Your task to perform on an android device: open chrome privacy settings Image 0: 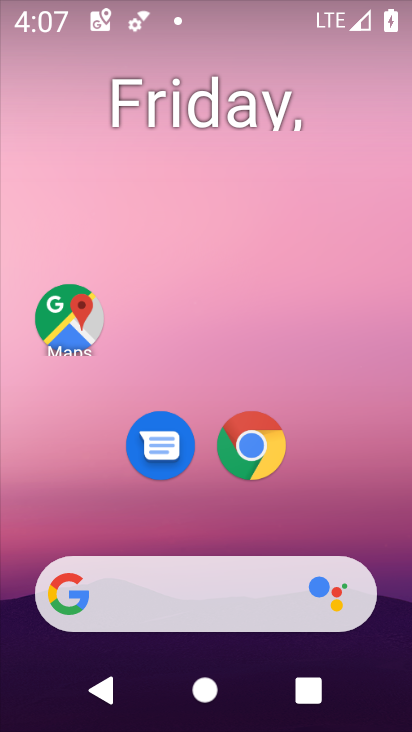
Step 0: click (260, 456)
Your task to perform on an android device: open chrome privacy settings Image 1: 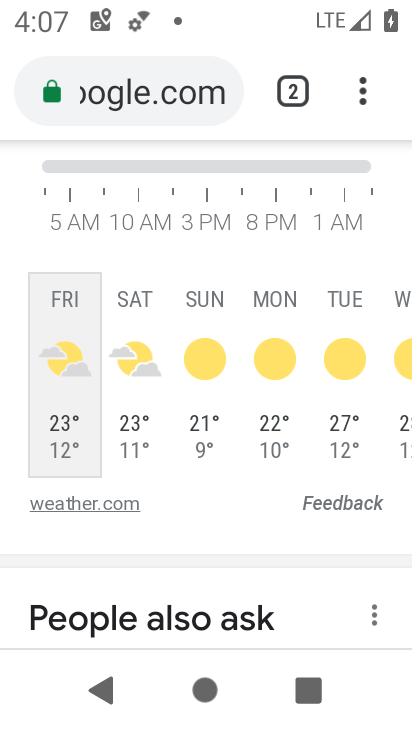
Step 1: click (364, 89)
Your task to perform on an android device: open chrome privacy settings Image 2: 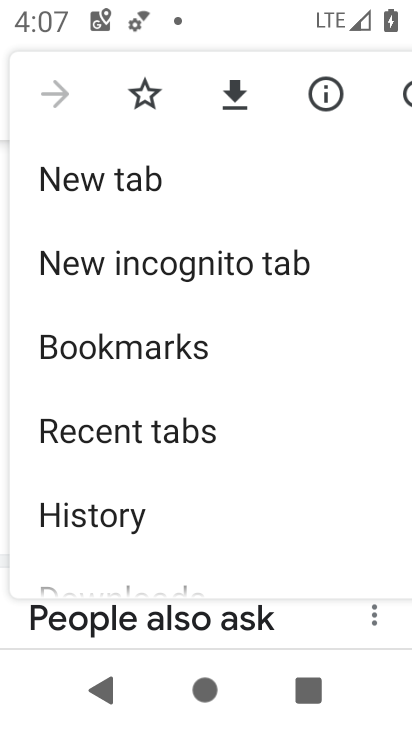
Step 2: drag from (170, 570) to (184, 105)
Your task to perform on an android device: open chrome privacy settings Image 3: 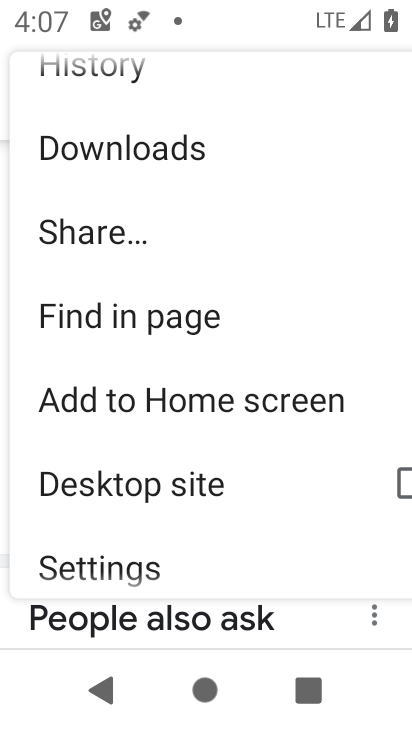
Step 3: drag from (155, 513) to (116, 211)
Your task to perform on an android device: open chrome privacy settings Image 4: 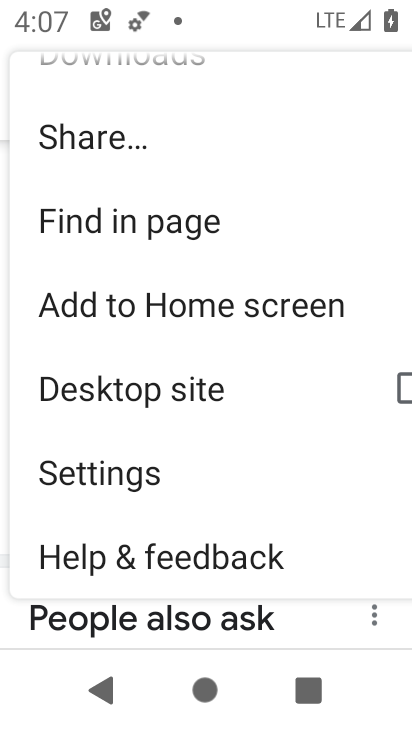
Step 4: click (139, 457)
Your task to perform on an android device: open chrome privacy settings Image 5: 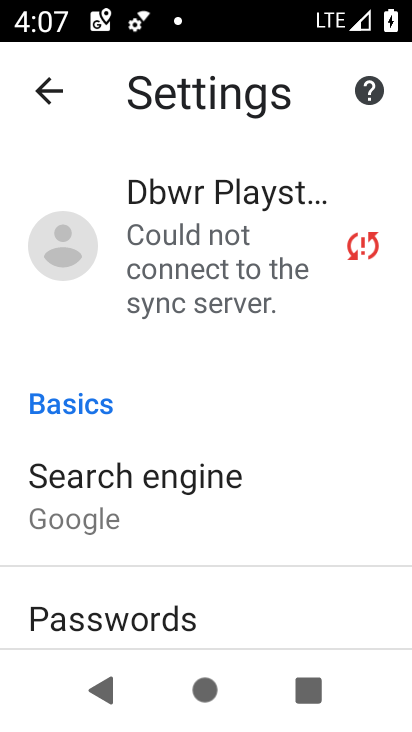
Step 5: drag from (189, 596) to (193, 221)
Your task to perform on an android device: open chrome privacy settings Image 6: 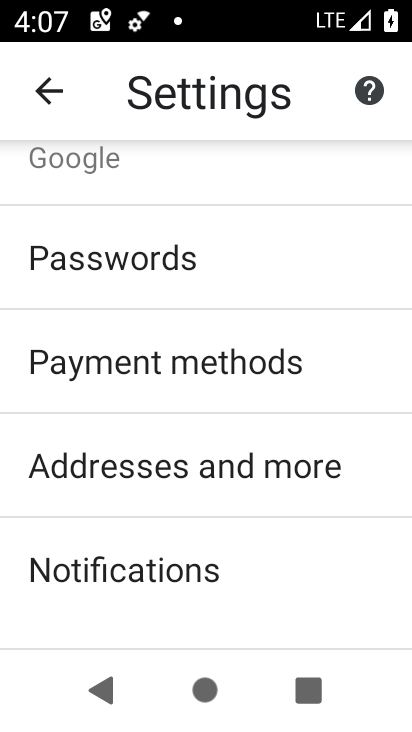
Step 6: drag from (181, 494) to (172, 91)
Your task to perform on an android device: open chrome privacy settings Image 7: 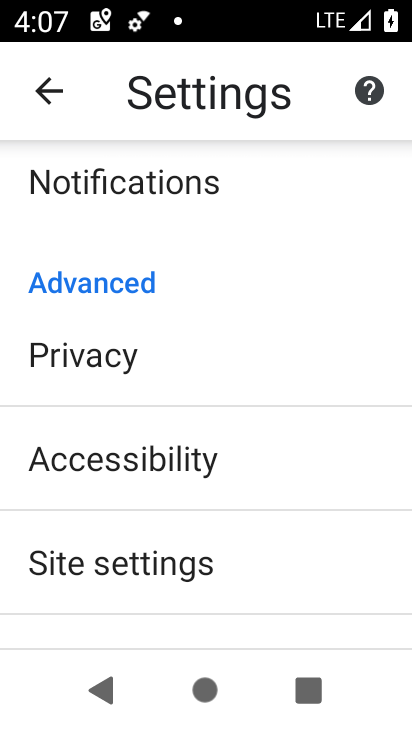
Step 7: click (150, 349)
Your task to perform on an android device: open chrome privacy settings Image 8: 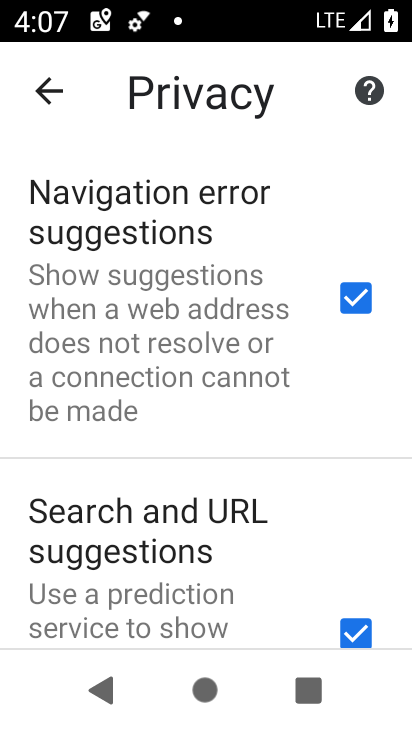
Step 8: task complete